Your task to perform on an android device: Open battery settings Image 0: 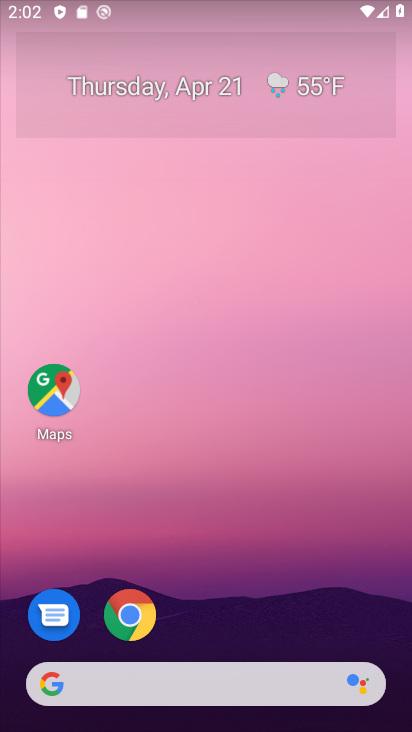
Step 0: drag from (223, 552) to (164, 32)
Your task to perform on an android device: Open battery settings Image 1: 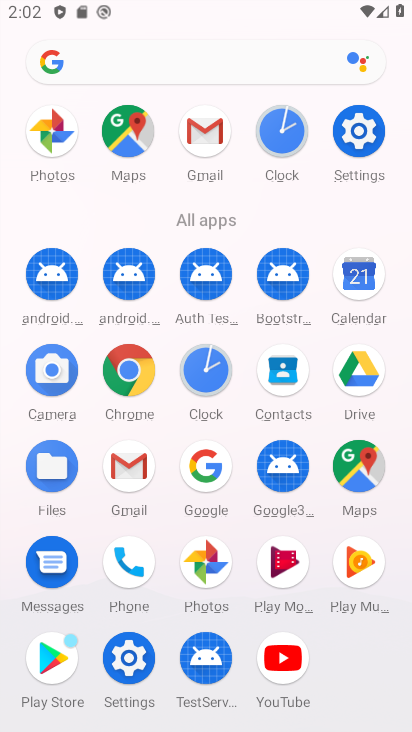
Step 1: click (374, 127)
Your task to perform on an android device: Open battery settings Image 2: 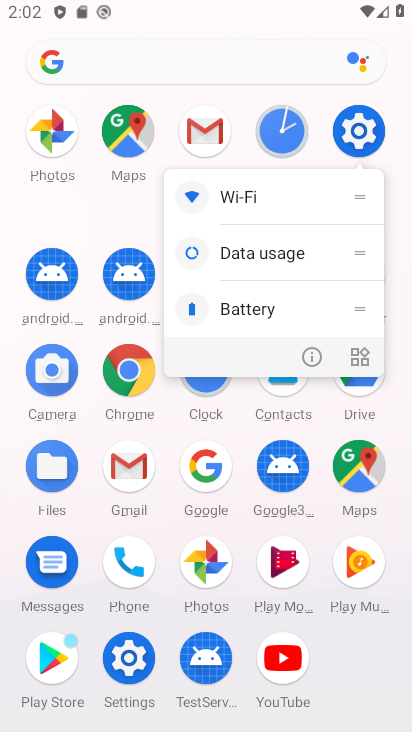
Step 2: click (348, 136)
Your task to perform on an android device: Open battery settings Image 3: 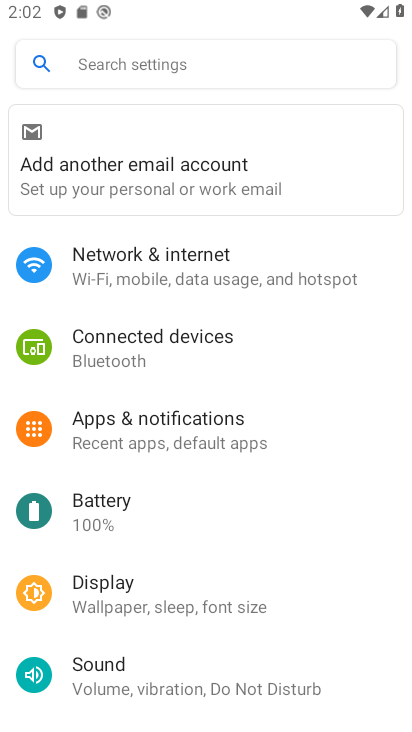
Step 3: click (136, 517)
Your task to perform on an android device: Open battery settings Image 4: 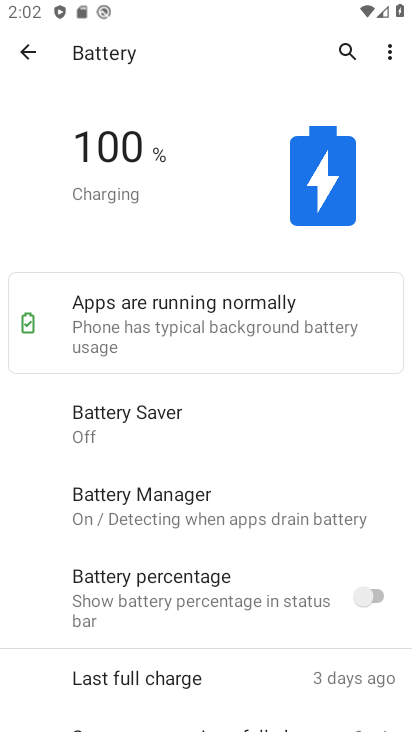
Step 4: task complete